Your task to perform on an android device: Search for the best rated 4k tvs on Walmart. Image 0: 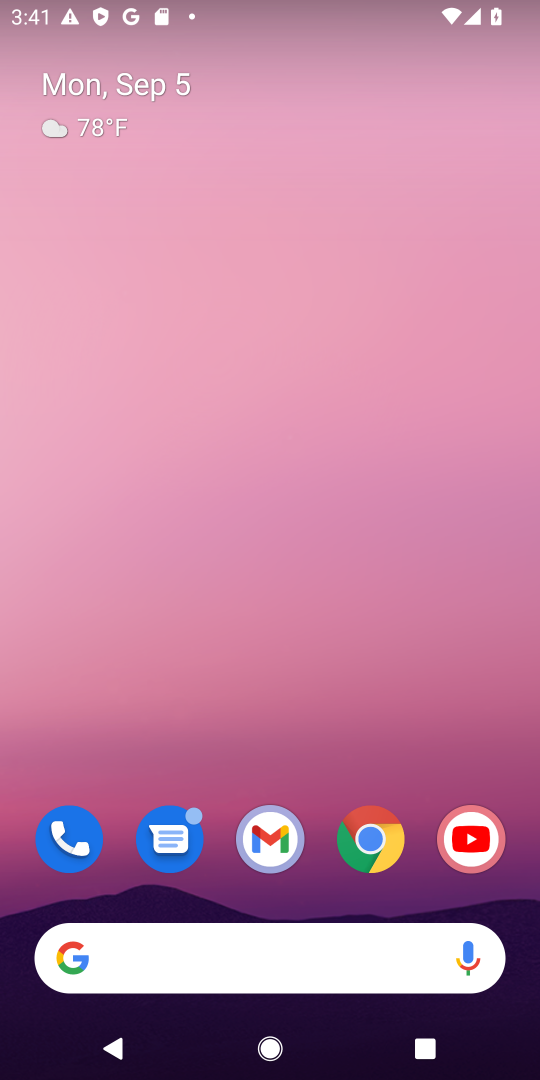
Step 0: click (366, 824)
Your task to perform on an android device: Search for the best rated 4k tvs on Walmart. Image 1: 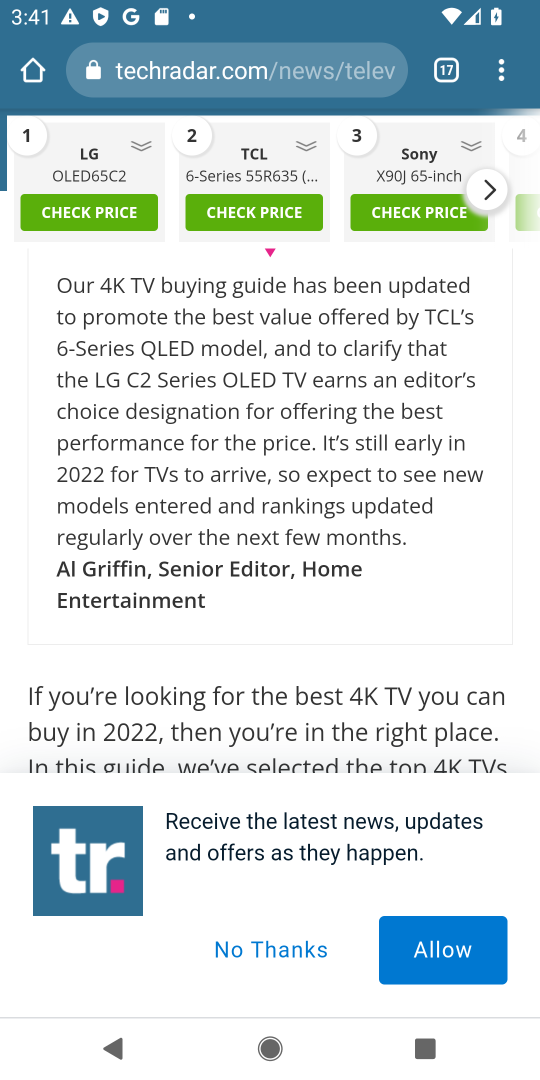
Step 1: click (226, 76)
Your task to perform on an android device: Search for the best rated 4k tvs on Walmart. Image 2: 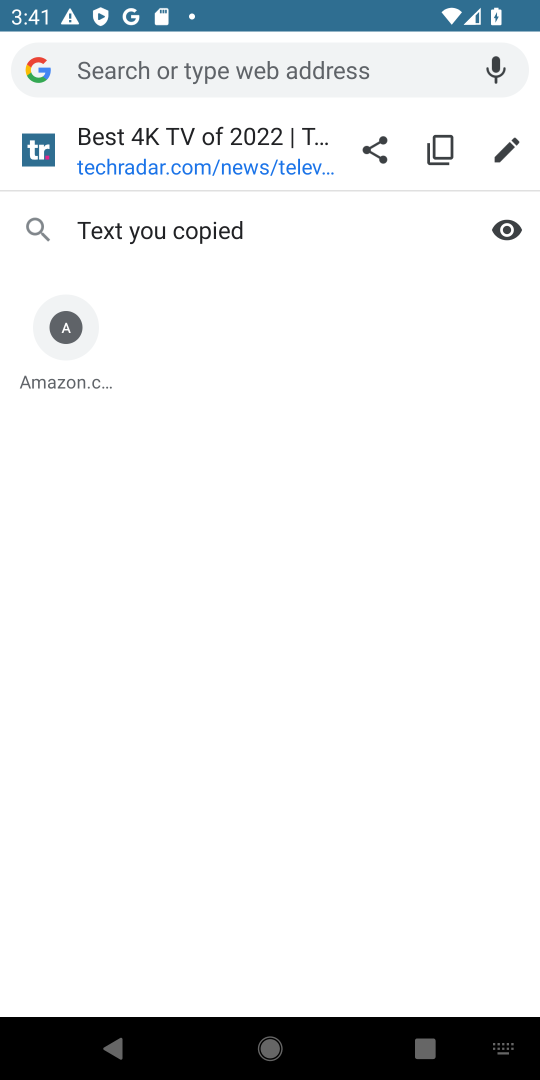
Step 2: type "walmart"
Your task to perform on an android device: Search for the best rated 4k tvs on Walmart. Image 3: 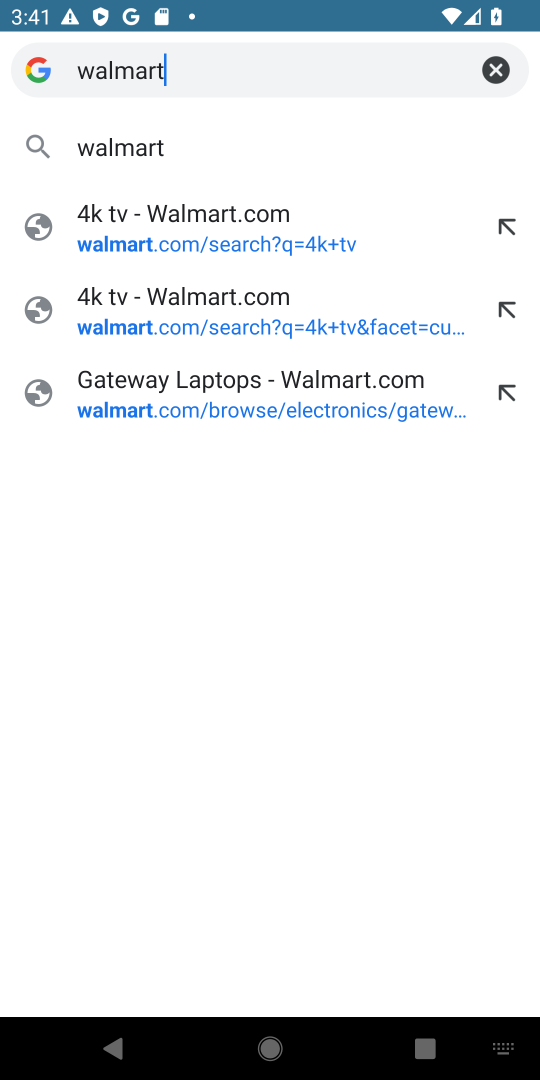
Step 3: click (239, 225)
Your task to perform on an android device: Search for the best rated 4k tvs on Walmart. Image 4: 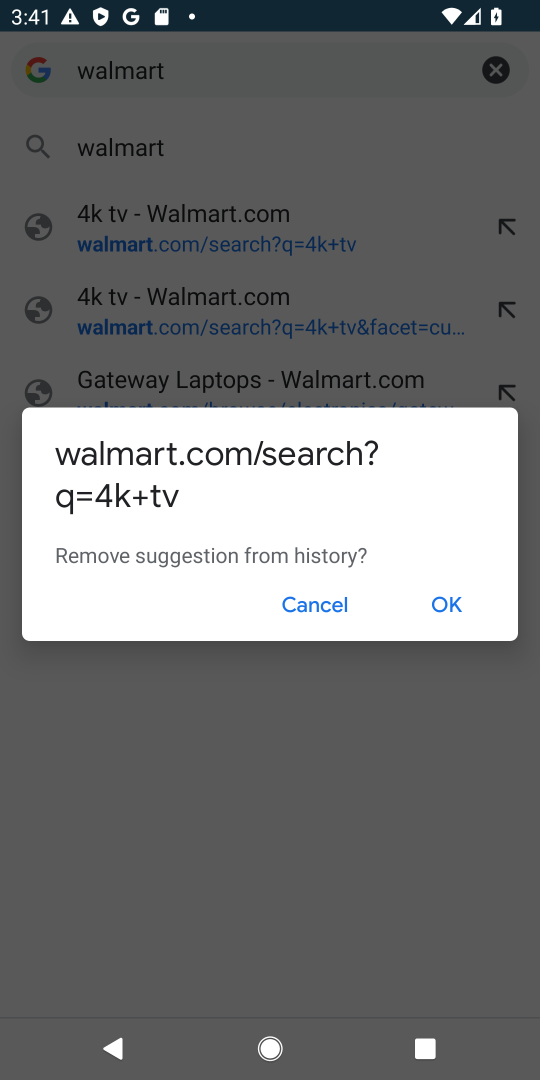
Step 4: click (292, 605)
Your task to perform on an android device: Search for the best rated 4k tvs on Walmart. Image 5: 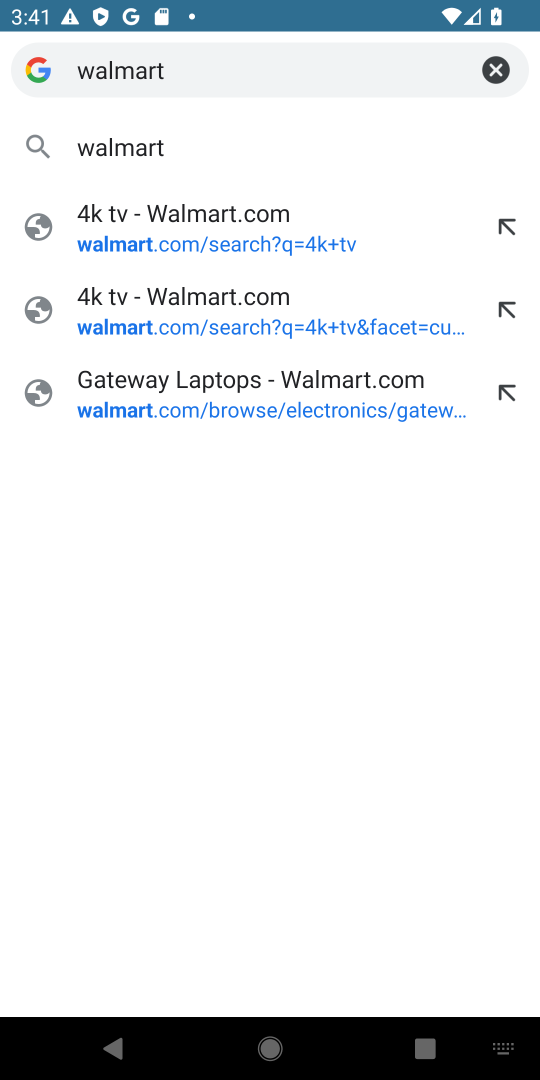
Step 5: click (247, 247)
Your task to perform on an android device: Search for the best rated 4k tvs on Walmart. Image 6: 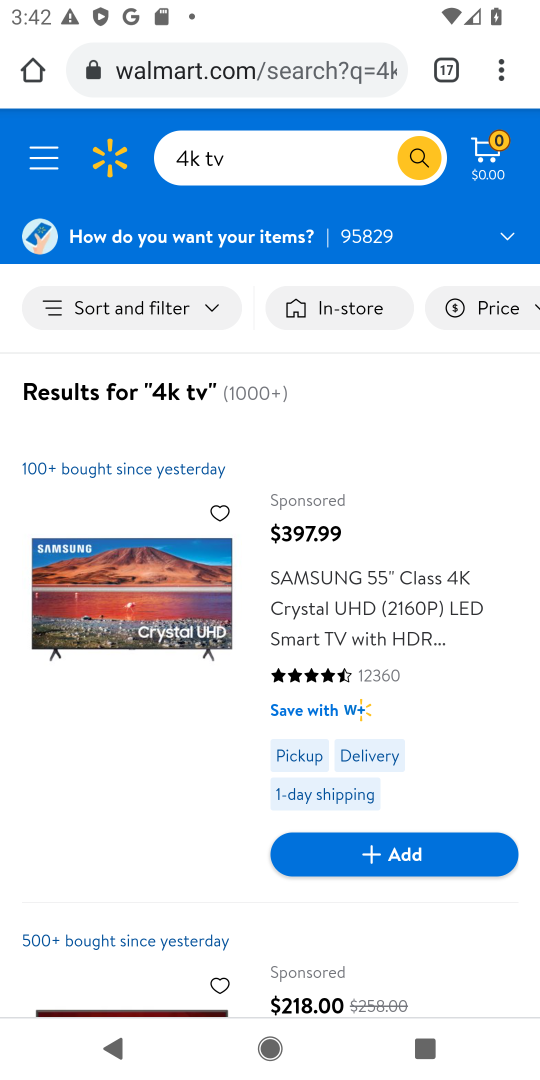
Step 6: click (215, 303)
Your task to perform on an android device: Search for the best rated 4k tvs on Walmart. Image 7: 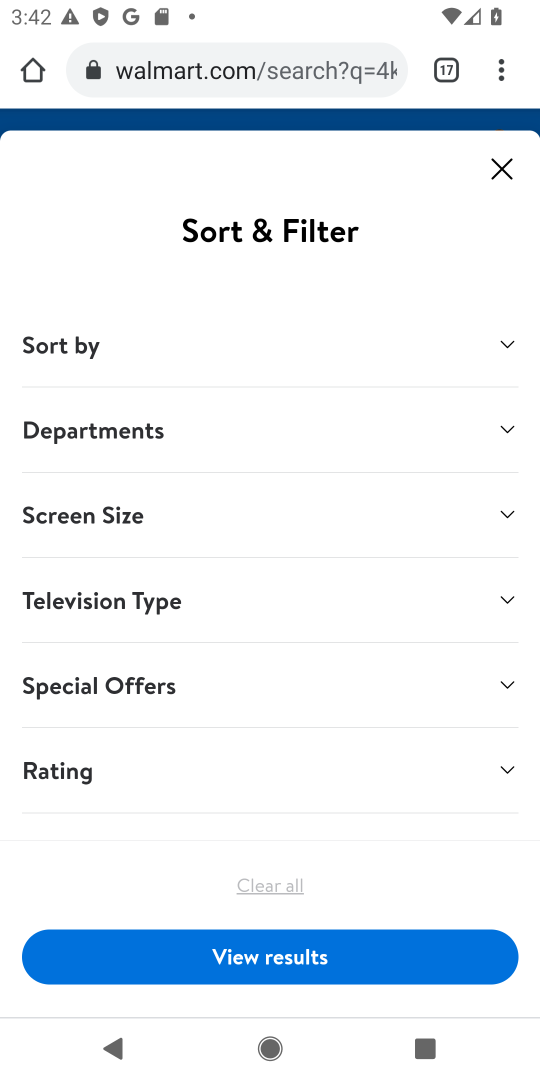
Step 7: click (199, 775)
Your task to perform on an android device: Search for the best rated 4k tvs on Walmart. Image 8: 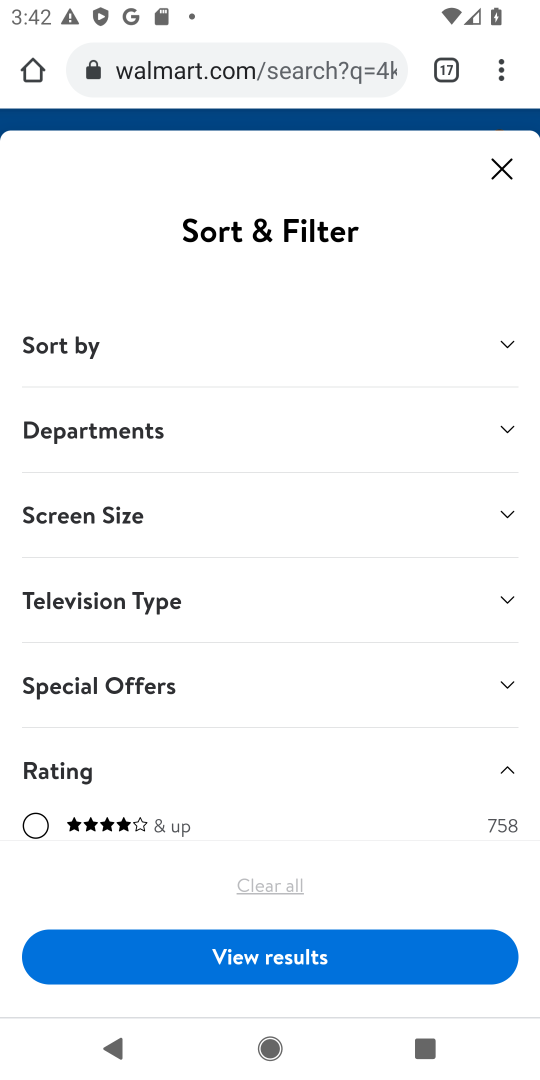
Step 8: click (29, 822)
Your task to perform on an android device: Search for the best rated 4k tvs on Walmart. Image 9: 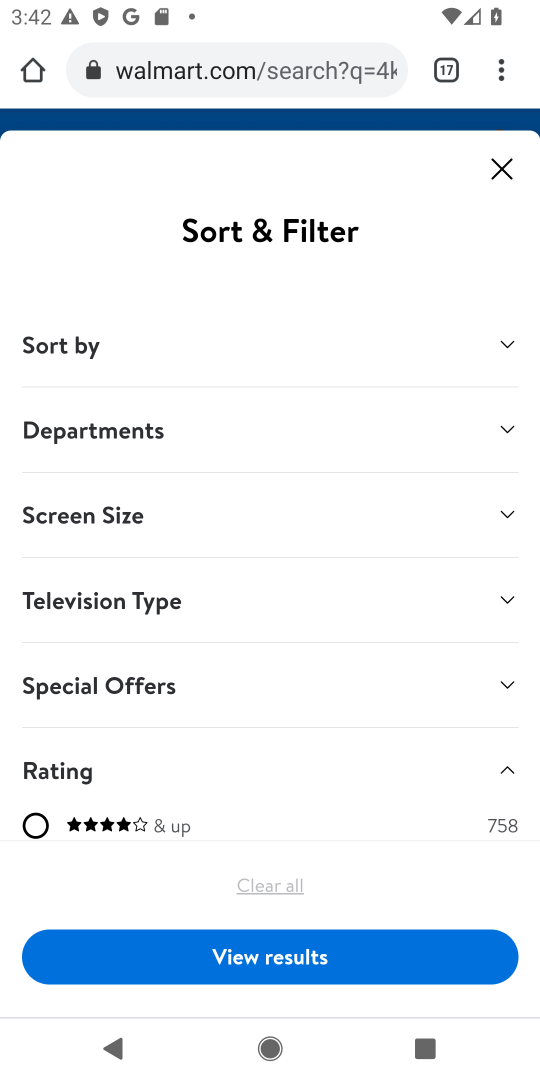
Step 9: click (34, 815)
Your task to perform on an android device: Search for the best rated 4k tvs on Walmart. Image 10: 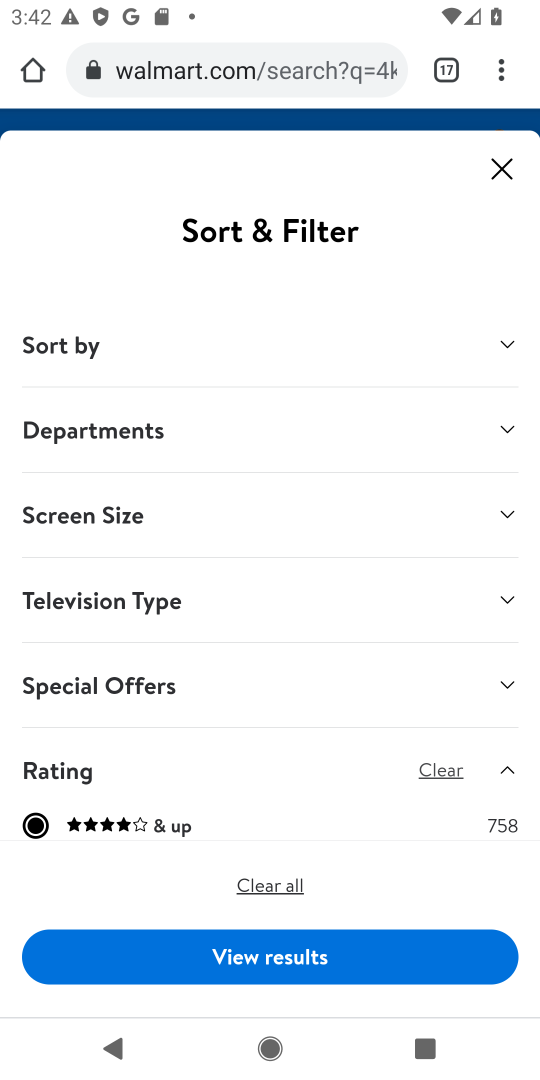
Step 10: click (253, 956)
Your task to perform on an android device: Search for the best rated 4k tvs on Walmart. Image 11: 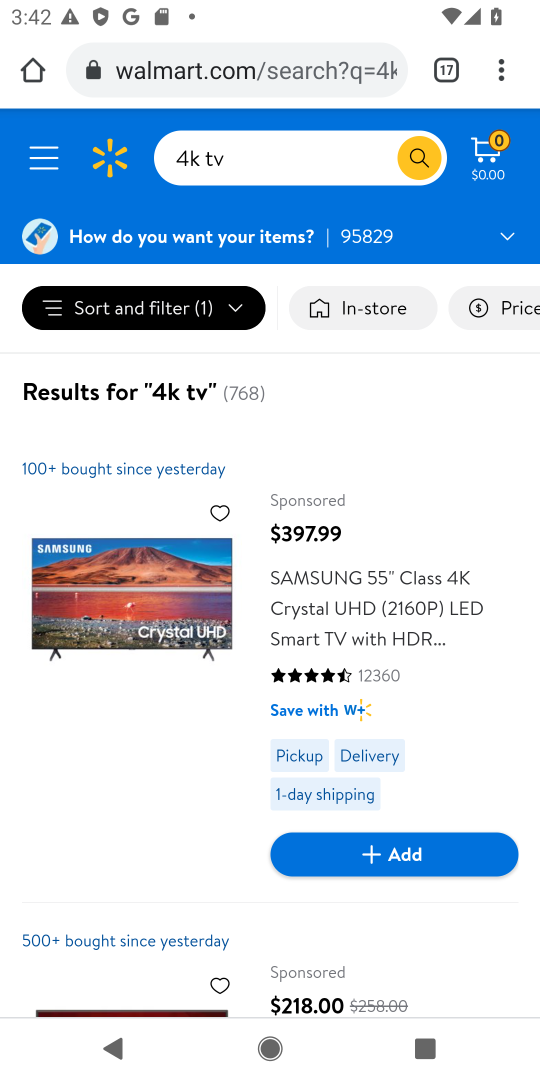
Step 11: drag from (27, 510) to (43, 334)
Your task to perform on an android device: Search for the best rated 4k tvs on Walmart. Image 12: 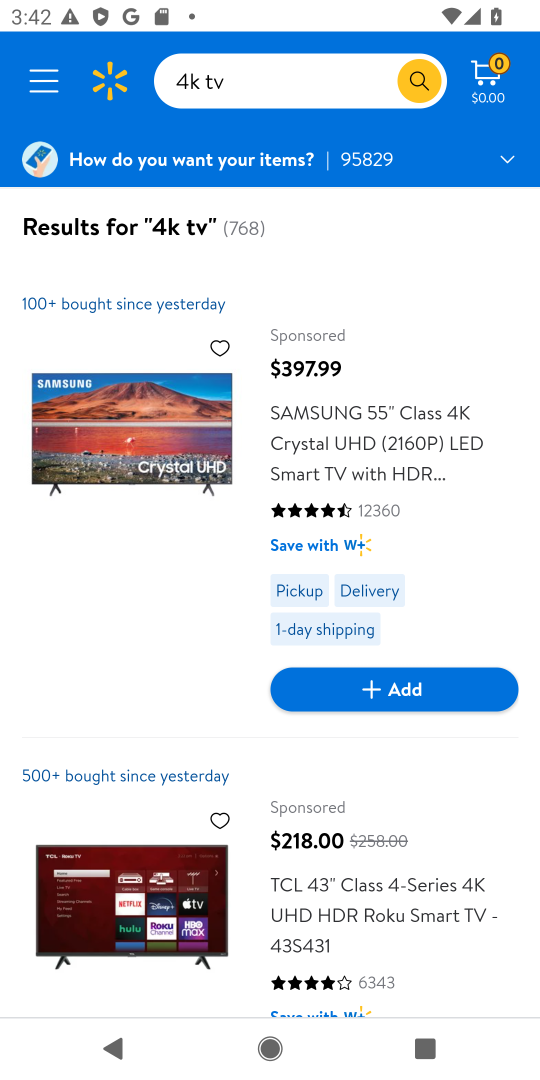
Step 12: drag from (475, 303) to (486, 180)
Your task to perform on an android device: Search for the best rated 4k tvs on Walmart. Image 13: 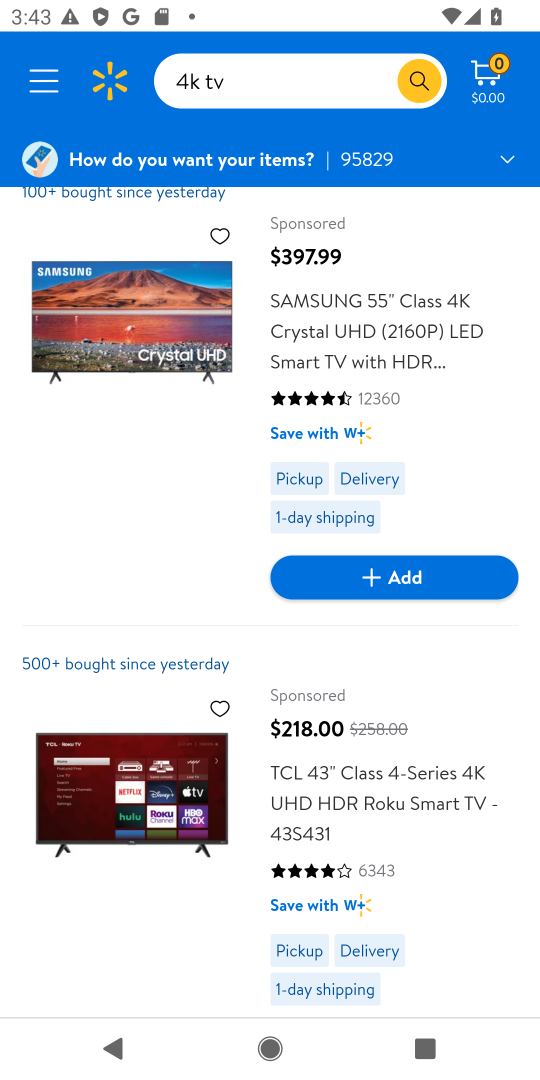
Step 13: drag from (469, 669) to (505, 239)
Your task to perform on an android device: Search for the best rated 4k tvs on Walmart. Image 14: 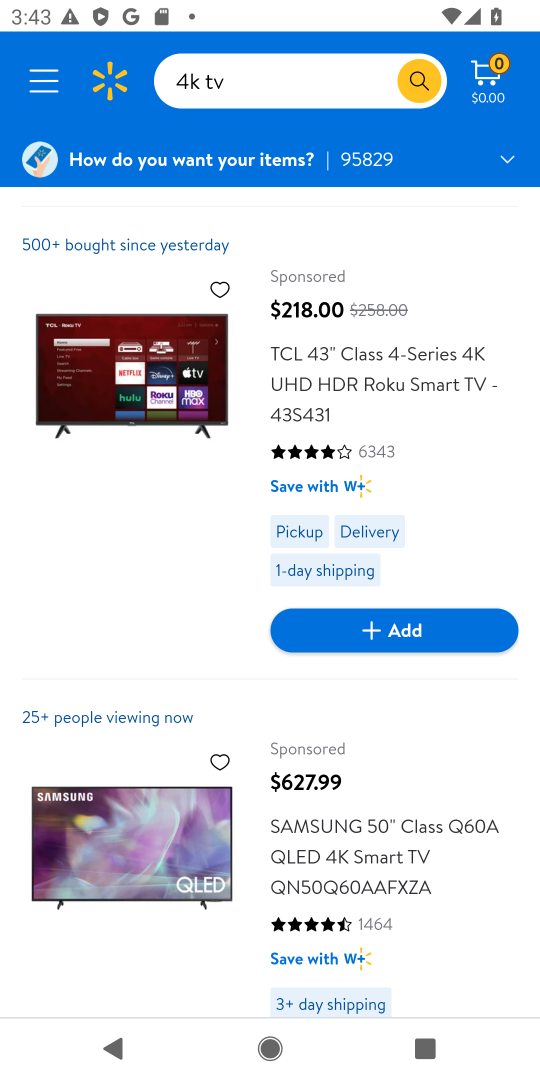
Step 14: click (431, 444)
Your task to perform on an android device: Search for the best rated 4k tvs on Walmart. Image 15: 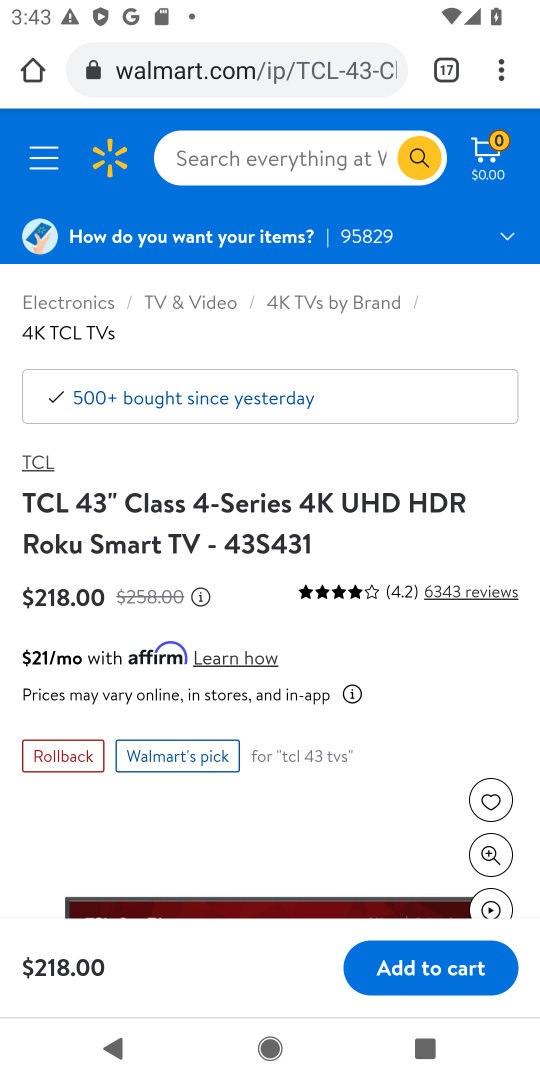
Step 15: drag from (451, 708) to (478, 323)
Your task to perform on an android device: Search for the best rated 4k tvs on Walmart. Image 16: 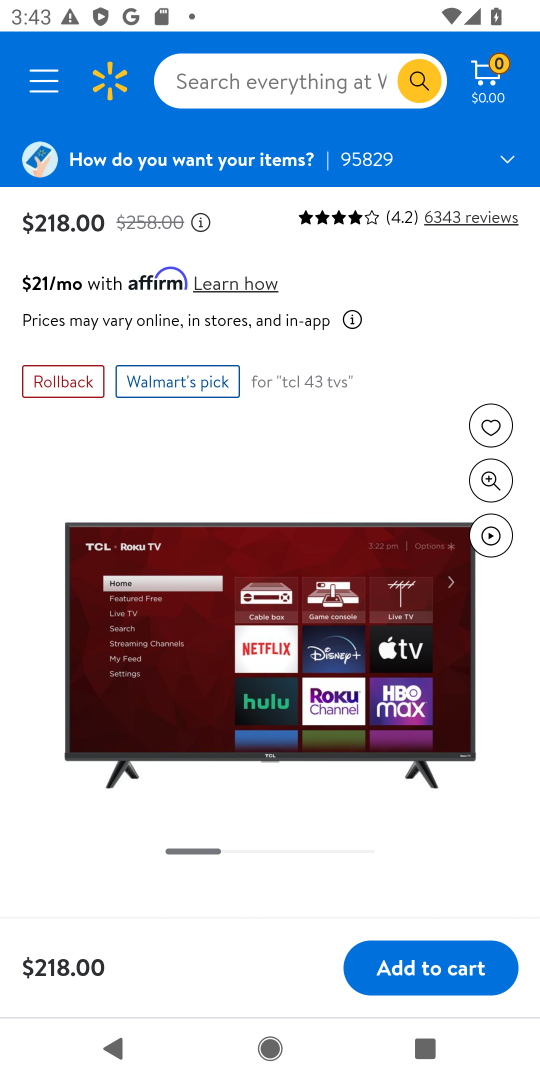
Step 16: drag from (415, 409) to (429, 231)
Your task to perform on an android device: Search for the best rated 4k tvs on Walmart. Image 17: 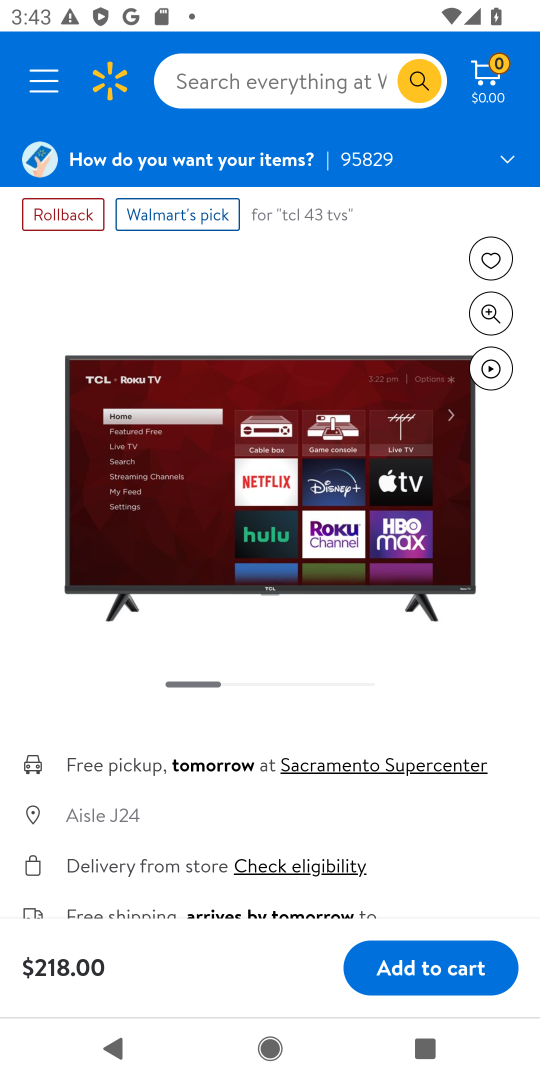
Step 17: click (518, 503)
Your task to perform on an android device: Search for the best rated 4k tvs on Walmart. Image 18: 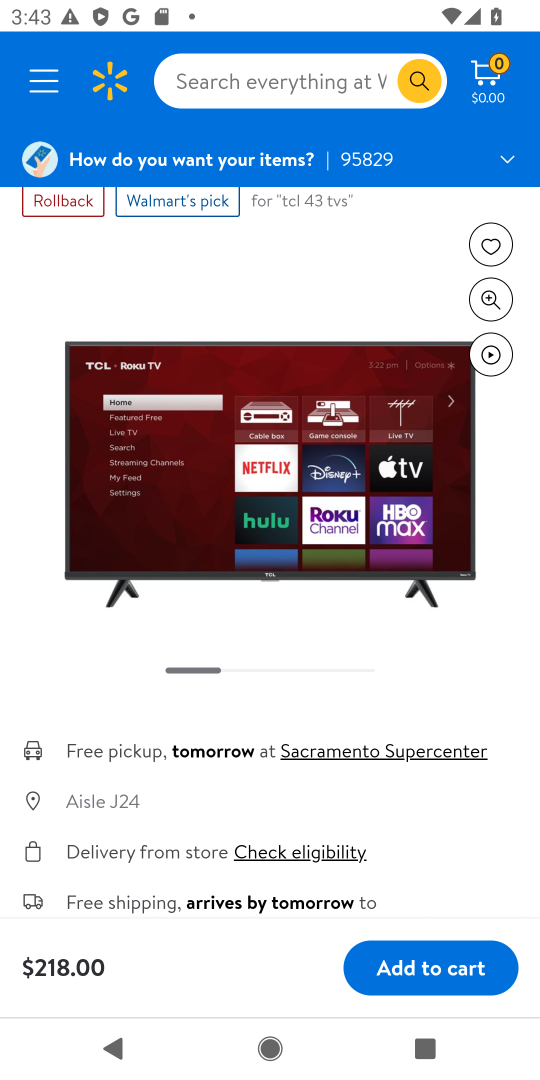
Step 18: task complete